Your task to perform on an android device: Open calendar and show me the fourth week of next month Image 0: 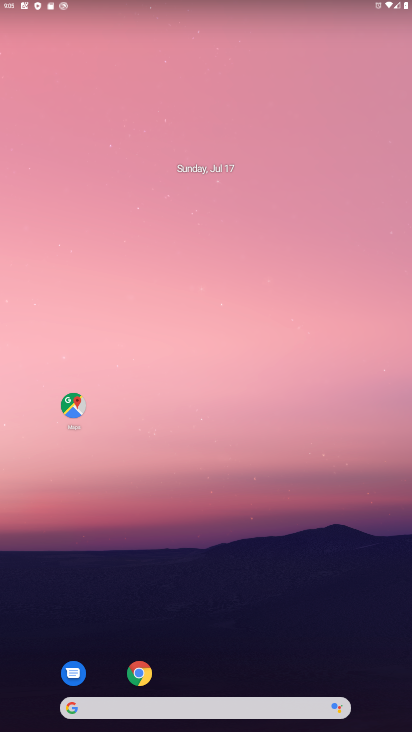
Step 0: drag from (278, 468) to (408, 228)
Your task to perform on an android device: Open calendar and show me the fourth week of next month Image 1: 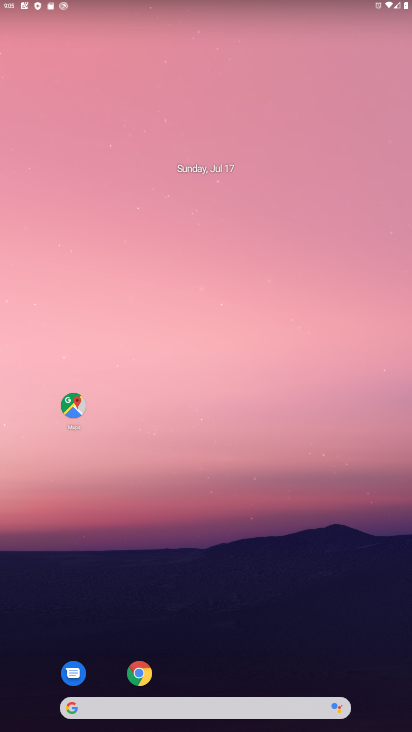
Step 1: click (355, 383)
Your task to perform on an android device: Open calendar and show me the fourth week of next month Image 2: 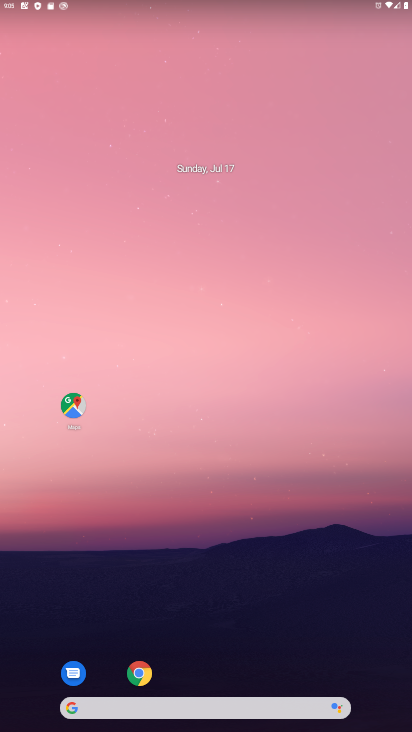
Step 2: drag from (349, 656) to (301, 5)
Your task to perform on an android device: Open calendar and show me the fourth week of next month Image 3: 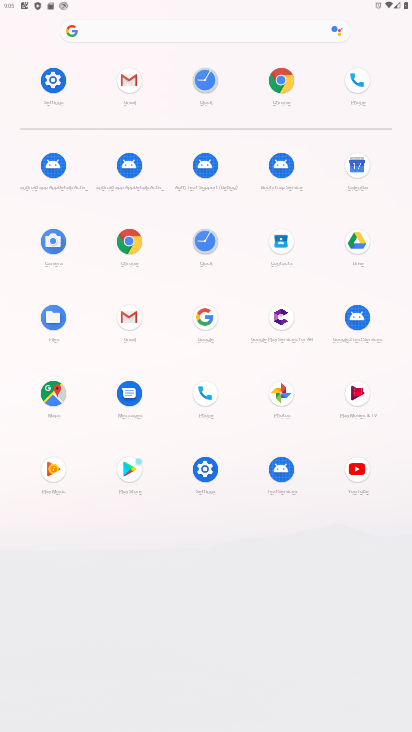
Step 3: click (358, 171)
Your task to perform on an android device: Open calendar and show me the fourth week of next month Image 4: 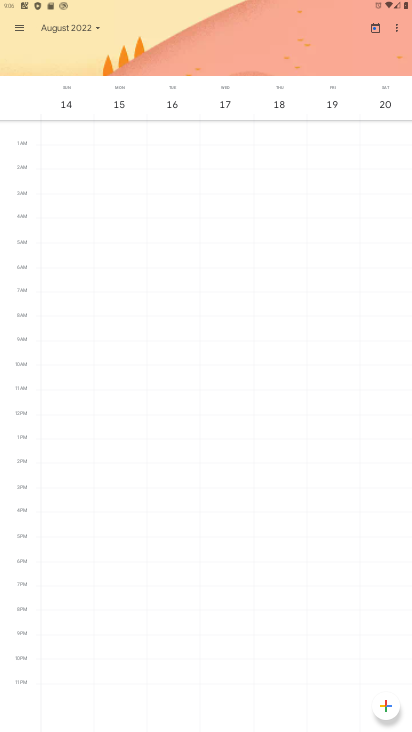
Step 4: click (88, 22)
Your task to perform on an android device: Open calendar and show me the fourth week of next month Image 5: 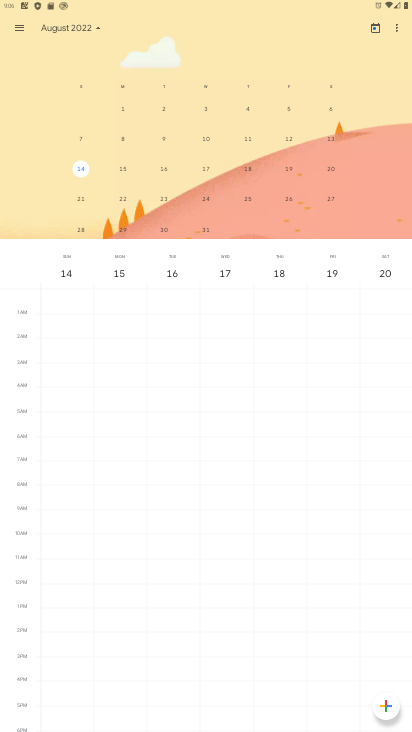
Step 5: click (249, 201)
Your task to perform on an android device: Open calendar and show me the fourth week of next month Image 6: 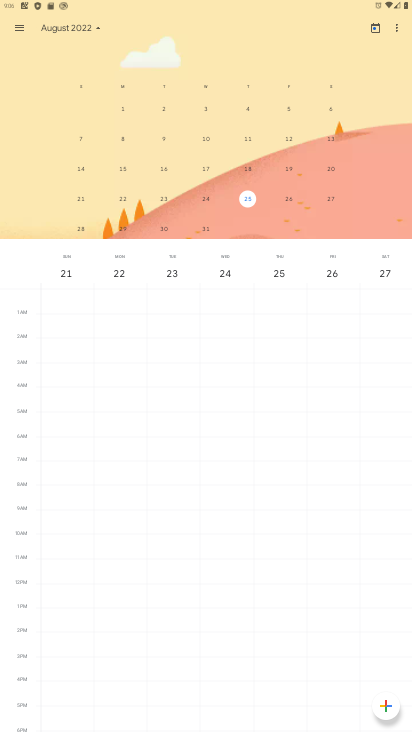
Step 6: task complete